Your task to perform on an android device: Go to Maps Image 0: 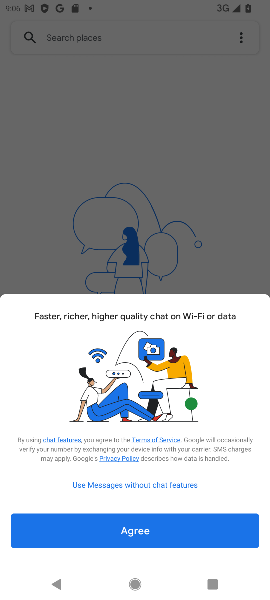
Step 0: press home button
Your task to perform on an android device: Go to Maps Image 1: 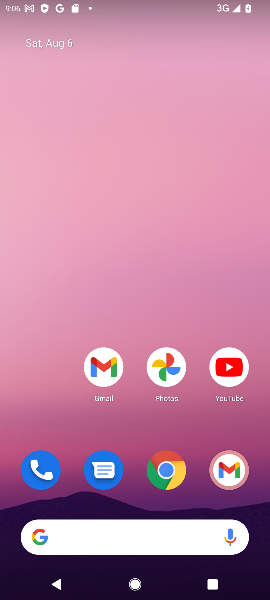
Step 1: drag from (116, 532) to (181, 54)
Your task to perform on an android device: Go to Maps Image 2: 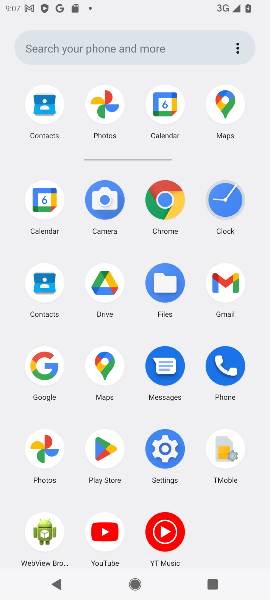
Step 2: click (107, 375)
Your task to perform on an android device: Go to Maps Image 3: 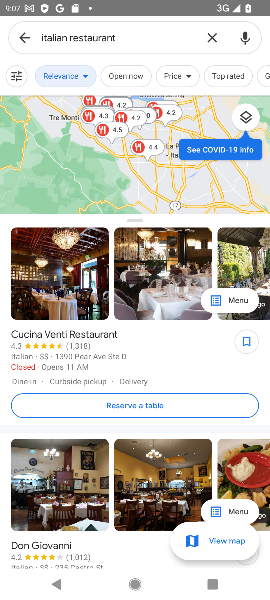
Step 3: click (32, 36)
Your task to perform on an android device: Go to Maps Image 4: 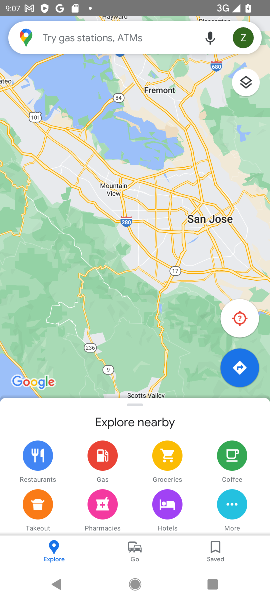
Step 4: click (80, 37)
Your task to perform on an android device: Go to Maps Image 5: 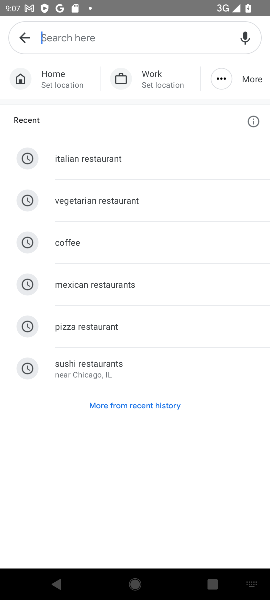
Step 5: click (25, 36)
Your task to perform on an android device: Go to Maps Image 6: 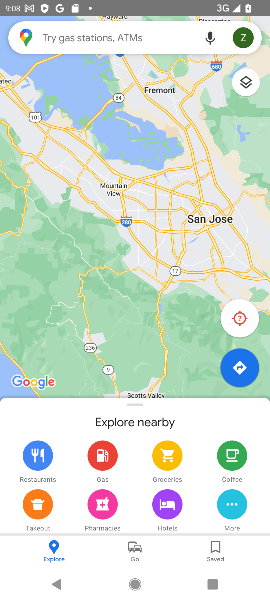
Step 6: task complete